Your task to perform on an android device: Is it going to rain tomorrow? Image 0: 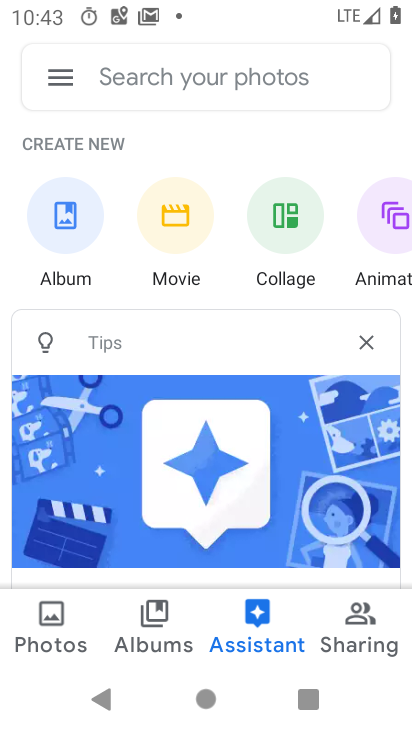
Step 0: press home button
Your task to perform on an android device: Is it going to rain tomorrow? Image 1: 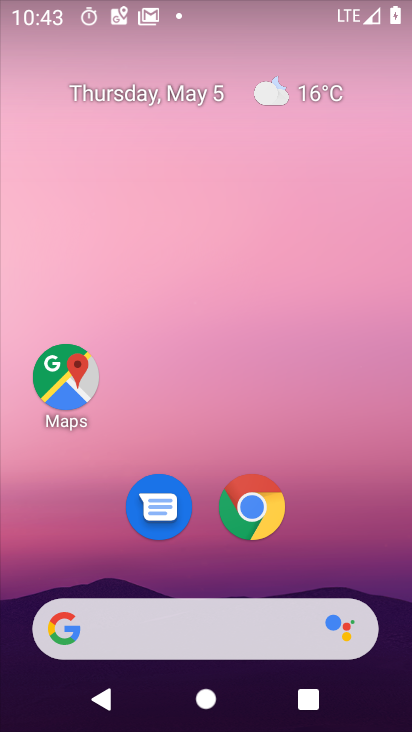
Step 1: click (249, 508)
Your task to perform on an android device: Is it going to rain tomorrow? Image 2: 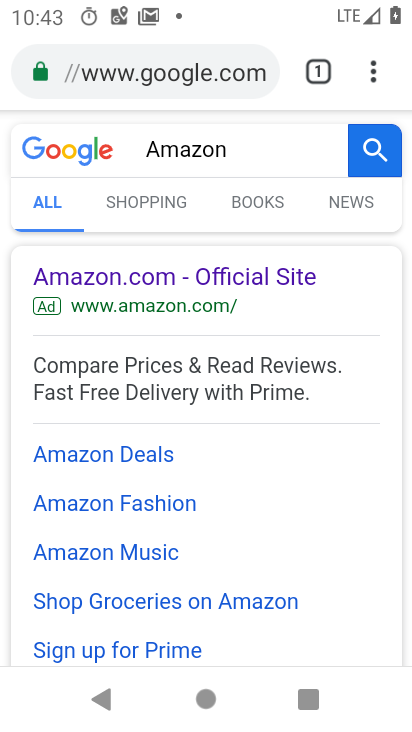
Step 2: click (252, 153)
Your task to perform on an android device: Is it going to rain tomorrow? Image 3: 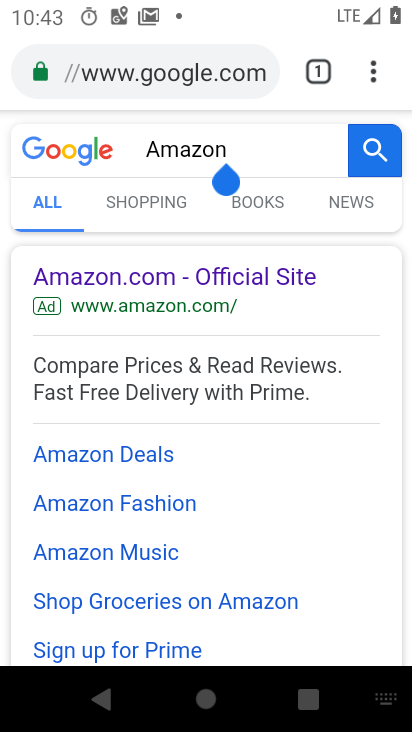
Step 3: click (211, 78)
Your task to perform on an android device: Is it going to rain tomorrow? Image 4: 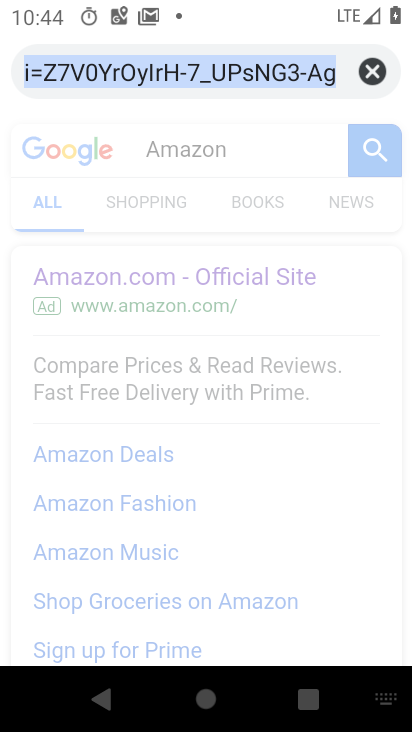
Step 4: type "is it going to rain tomorrow"
Your task to perform on an android device: Is it going to rain tomorrow? Image 5: 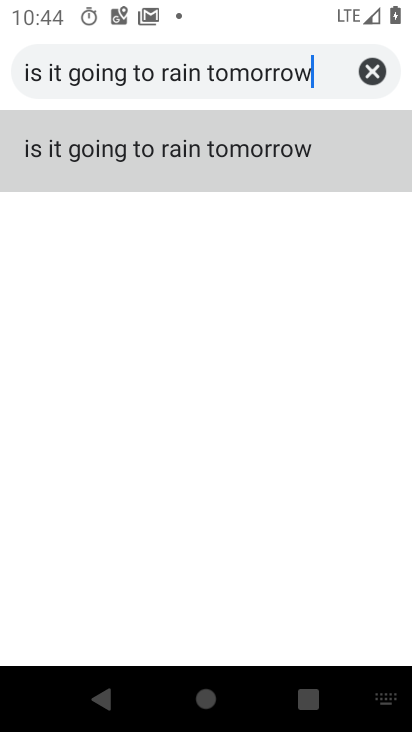
Step 5: click (102, 178)
Your task to perform on an android device: Is it going to rain tomorrow? Image 6: 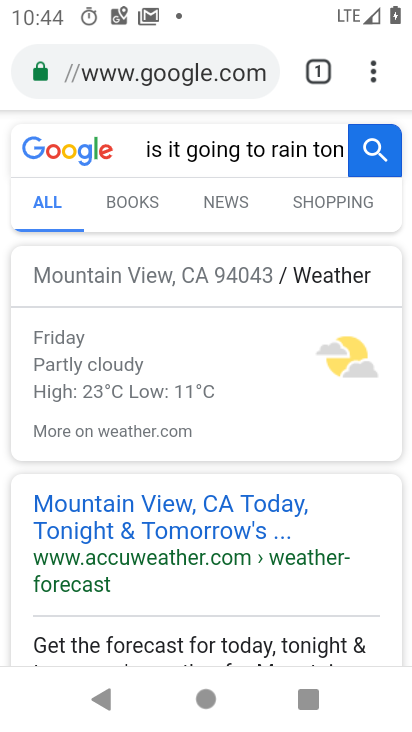
Step 6: task complete